Your task to perform on an android device: Go to Reddit.com Image 0: 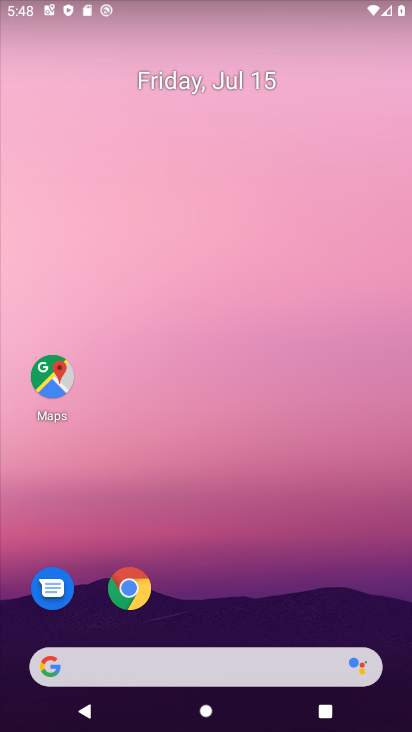
Step 0: drag from (261, 583) to (264, 11)
Your task to perform on an android device: Go to Reddit.com Image 1: 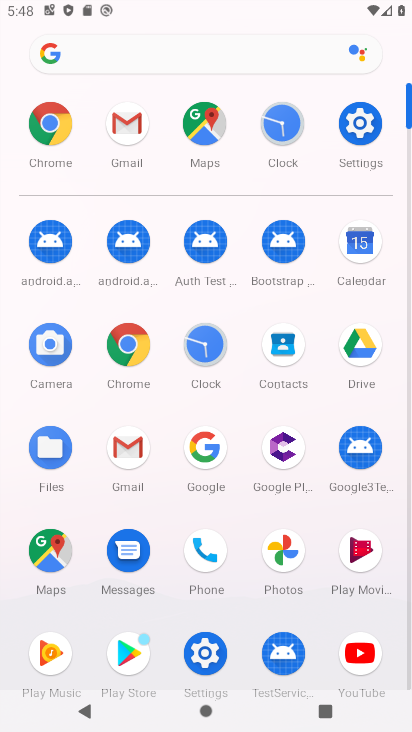
Step 1: click (134, 337)
Your task to perform on an android device: Go to Reddit.com Image 2: 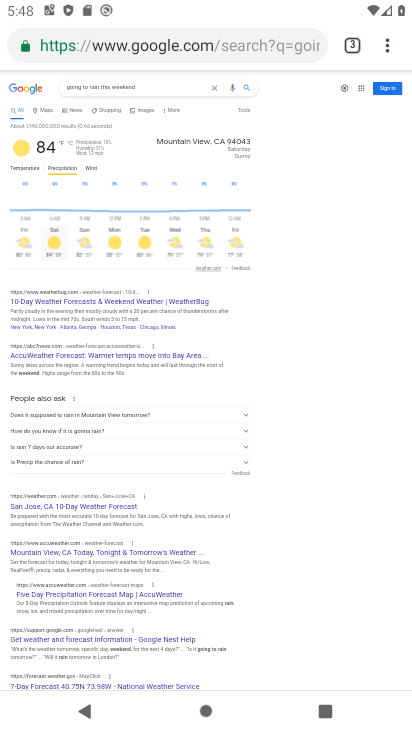
Step 2: click (278, 50)
Your task to perform on an android device: Go to Reddit.com Image 3: 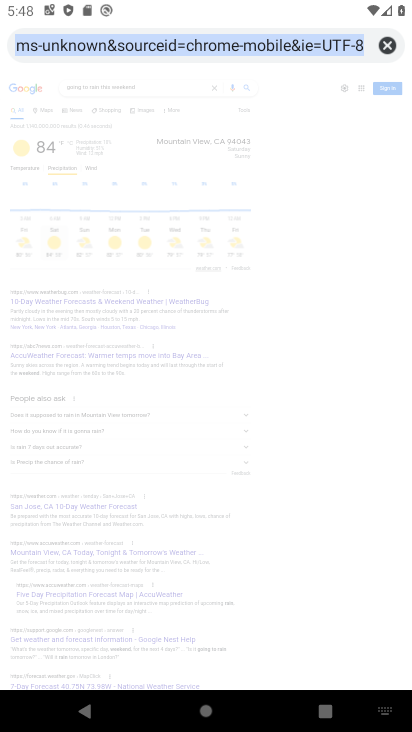
Step 3: type "reddit.com"
Your task to perform on an android device: Go to Reddit.com Image 4: 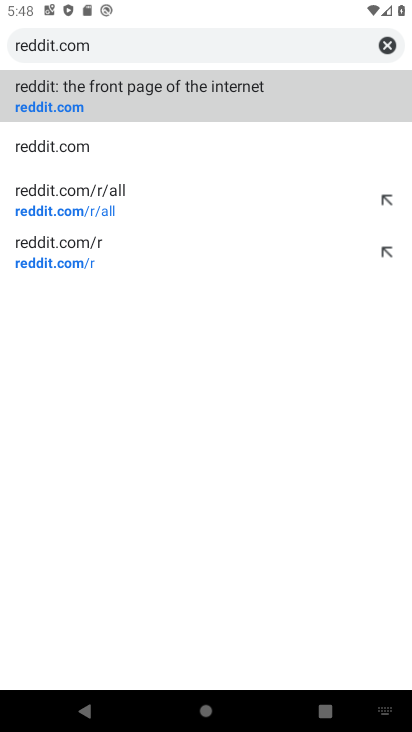
Step 4: click (196, 116)
Your task to perform on an android device: Go to Reddit.com Image 5: 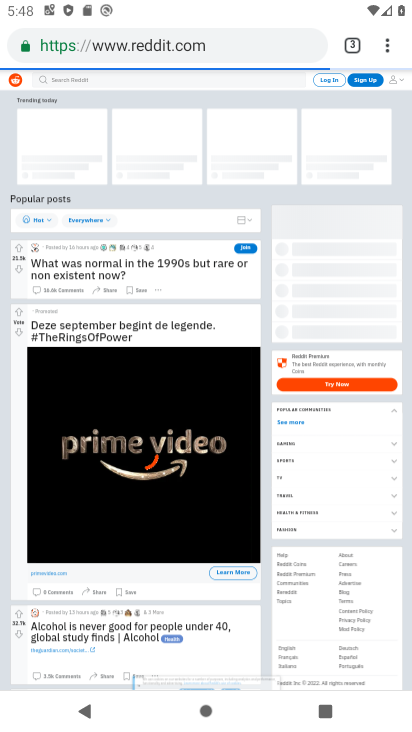
Step 5: task complete